Your task to perform on an android device: Check the news Image 0: 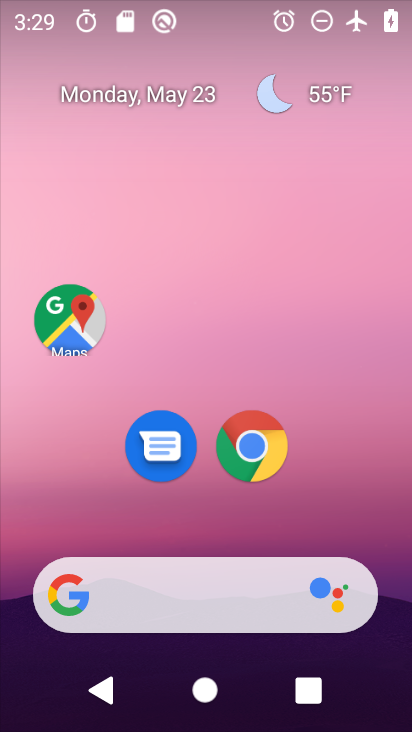
Step 0: drag from (202, 484) to (131, 115)
Your task to perform on an android device: Check the news Image 1: 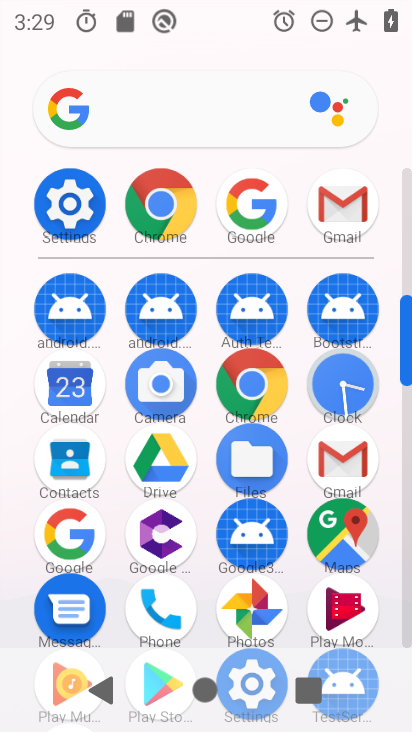
Step 1: click (236, 206)
Your task to perform on an android device: Check the news Image 2: 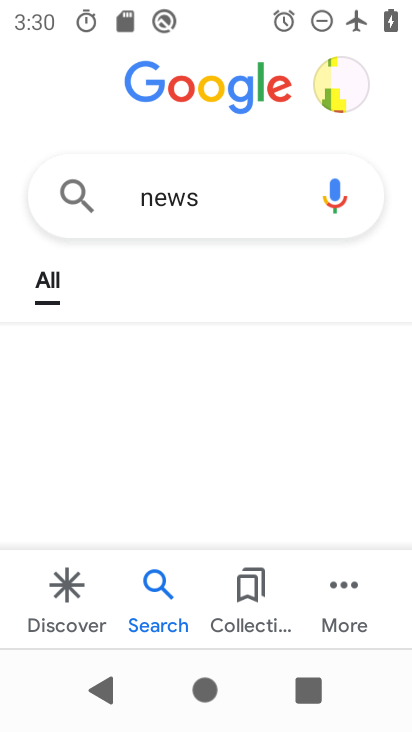
Step 2: task complete